Your task to perform on an android device: What's the US dollar exchange rate against the Australian Dollar? Image 0: 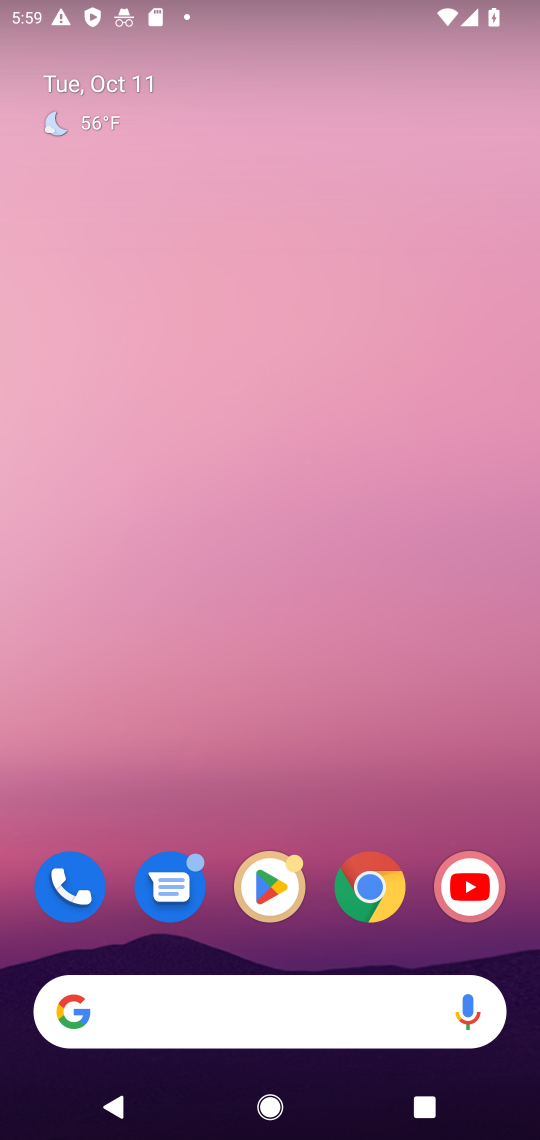
Step 0: click (511, 931)
Your task to perform on an android device: What's the US dollar exchange rate against the Australian Dollar? Image 1: 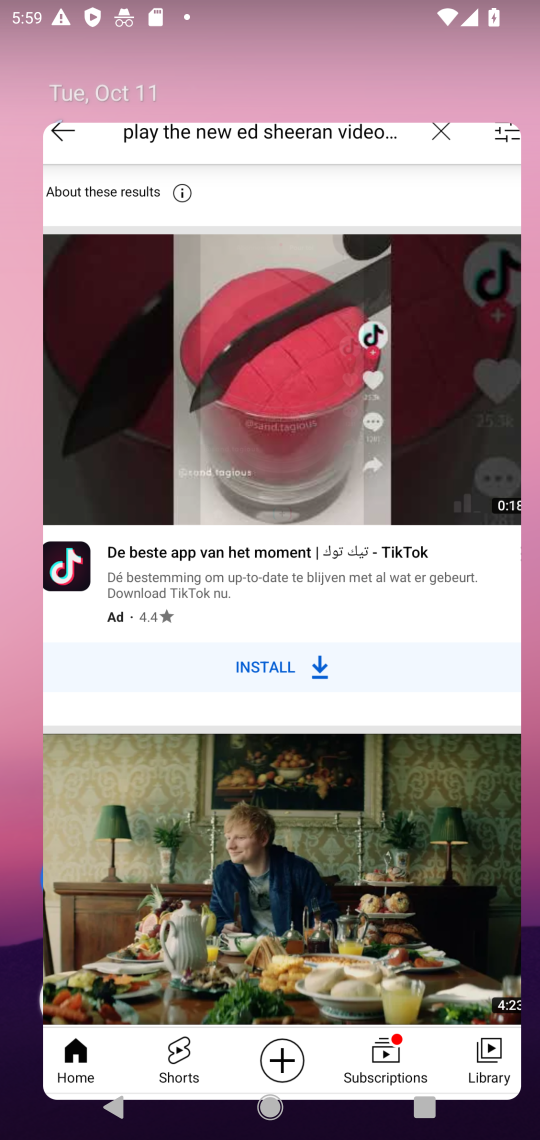
Step 1: click (289, 1006)
Your task to perform on an android device: What's the US dollar exchange rate against the Australian Dollar? Image 2: 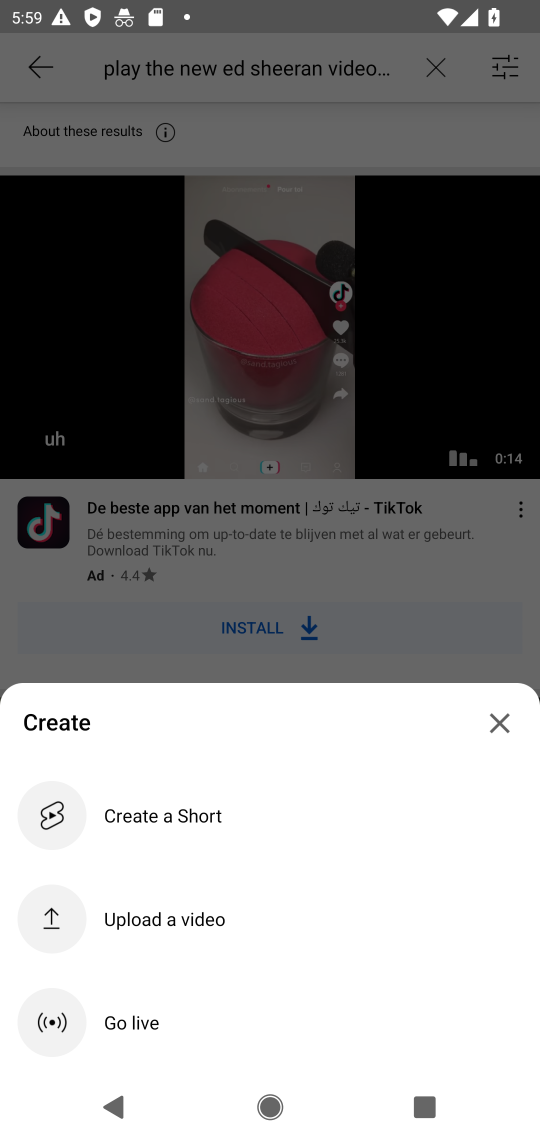
Step 2: click (487, 716)
Your task to perform on an android device: What's the US dollar exchange rate against the Australian Dollar? Image 3: 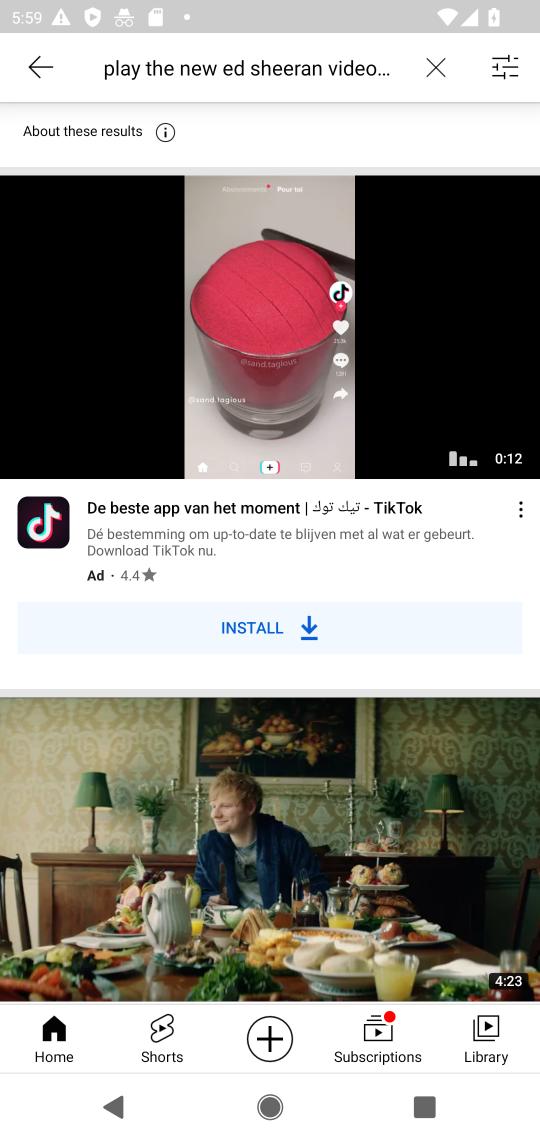
Step 3: click (45, 72)
Your task to perform on an android device: What's the US dollar exchange rate against the Australian Dollar? Image 4: 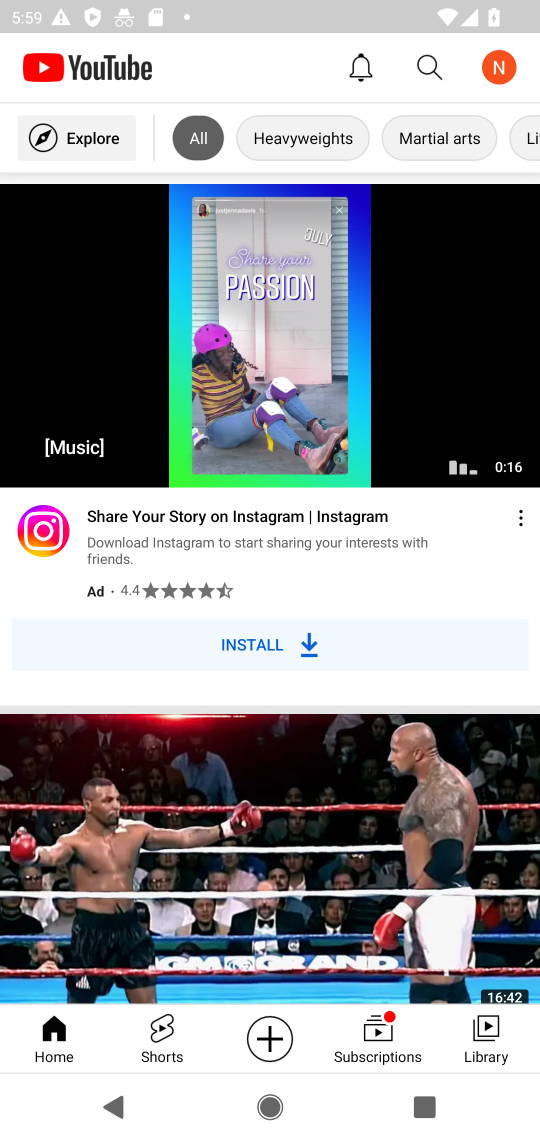
Step 4: press home button
Your task to perform on an android device: What's the US dollar exchange rate against the Australian Dollar? Image 5: 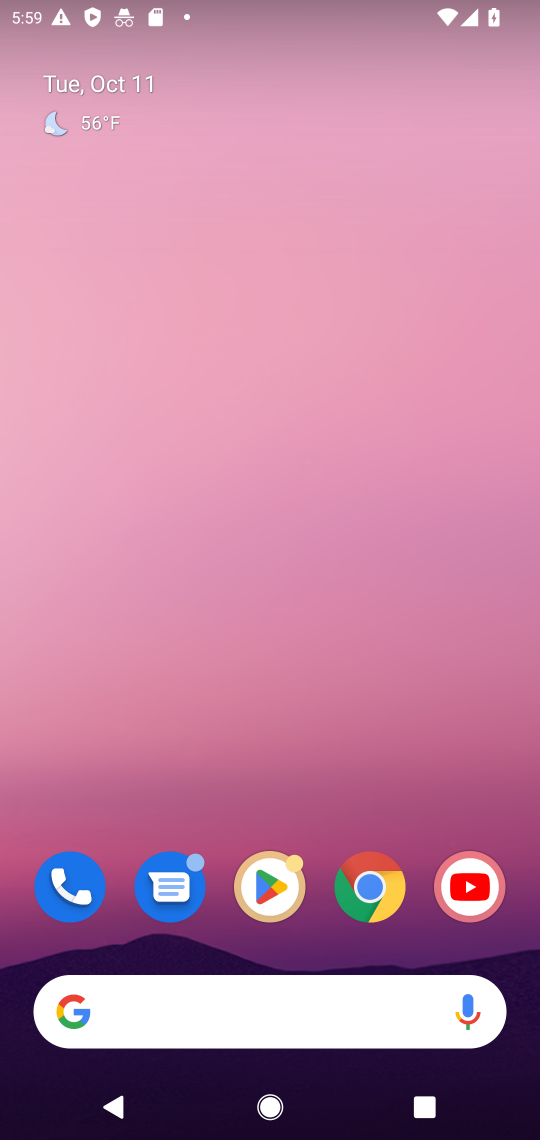
Step 5: click (286, 1014)
Your task to perform on an android device: What's the US dollar exchange rate against the Australian Dollar? Image 6: 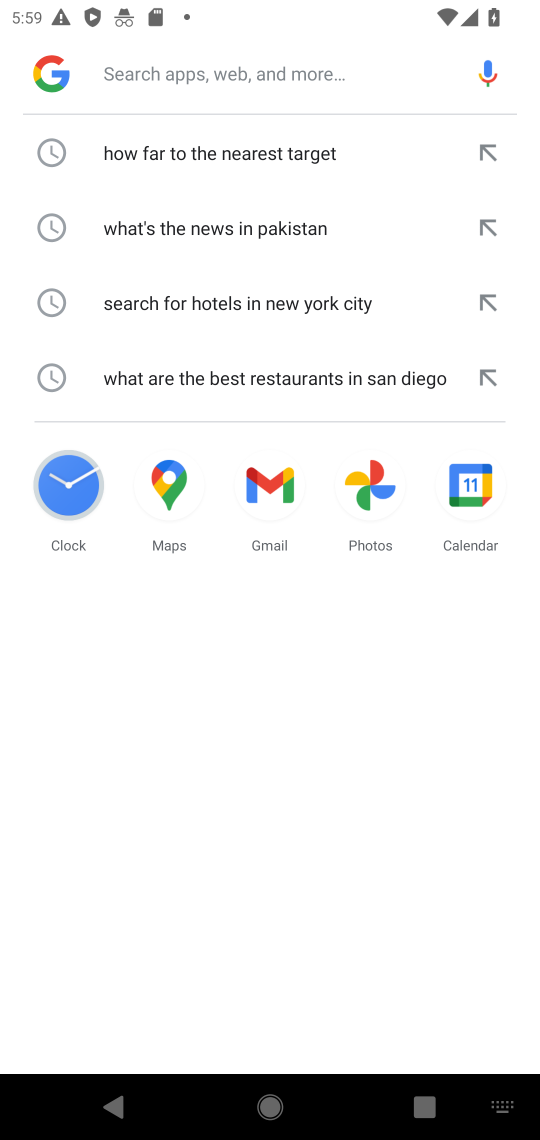
Step 6: type "What's the US dollar exchange rate against the Australian Dollar?"
Your task to perform on an android device: What's the US dollar exchange rate against the Australian Dollar? Image 7: 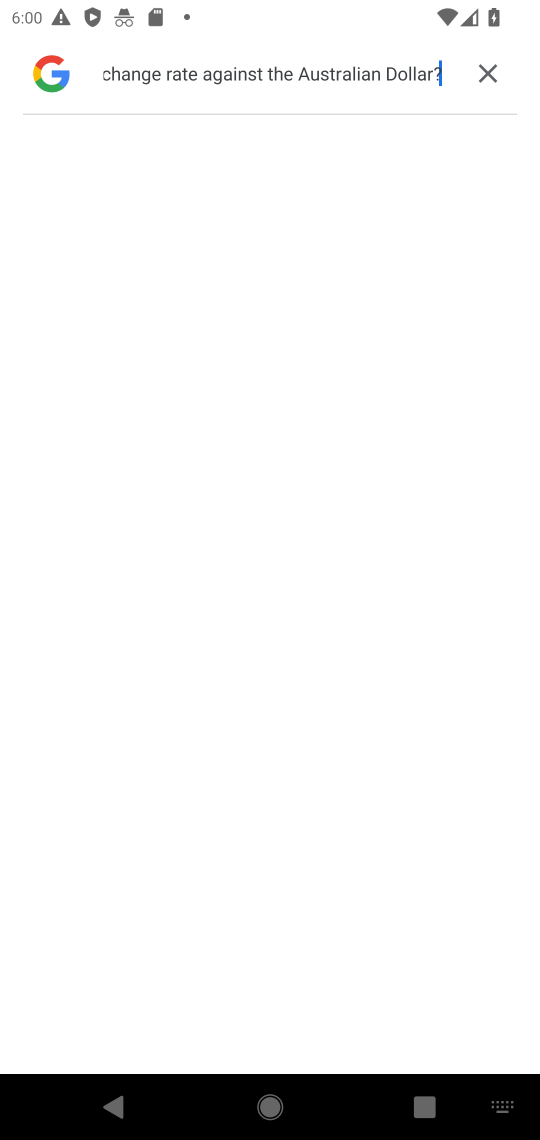
Step 7: press back button
Your task to perform on an android device: What's the US dollar exchange rate against the Australian Dollar? Image 8: 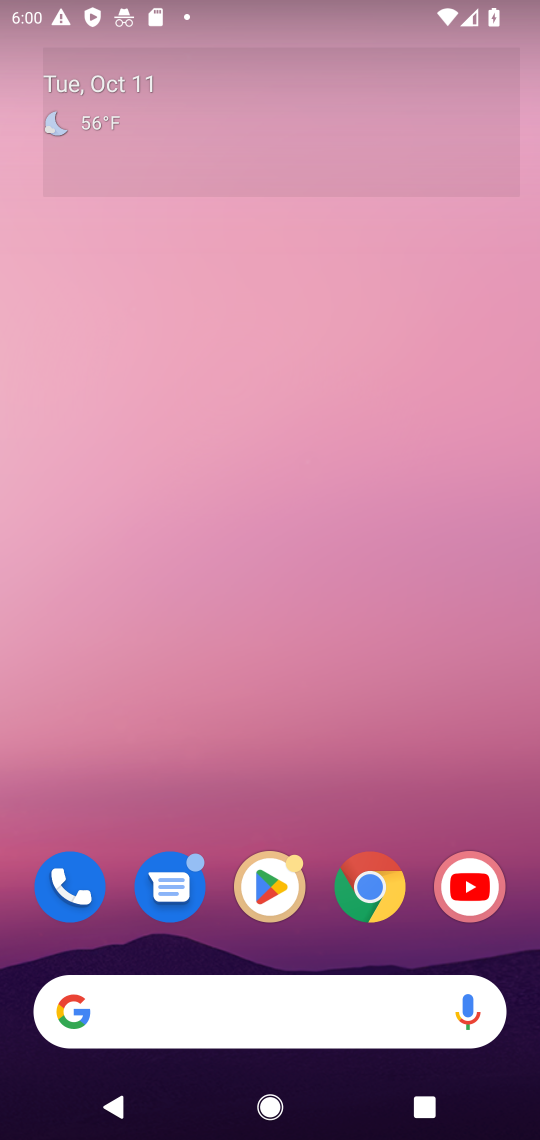
Step 8: drag from (297, 911) to (256, 71)
Your task to perform on an android device: What's the US dollar exchange rate against the Australian Dollar? Image 9: 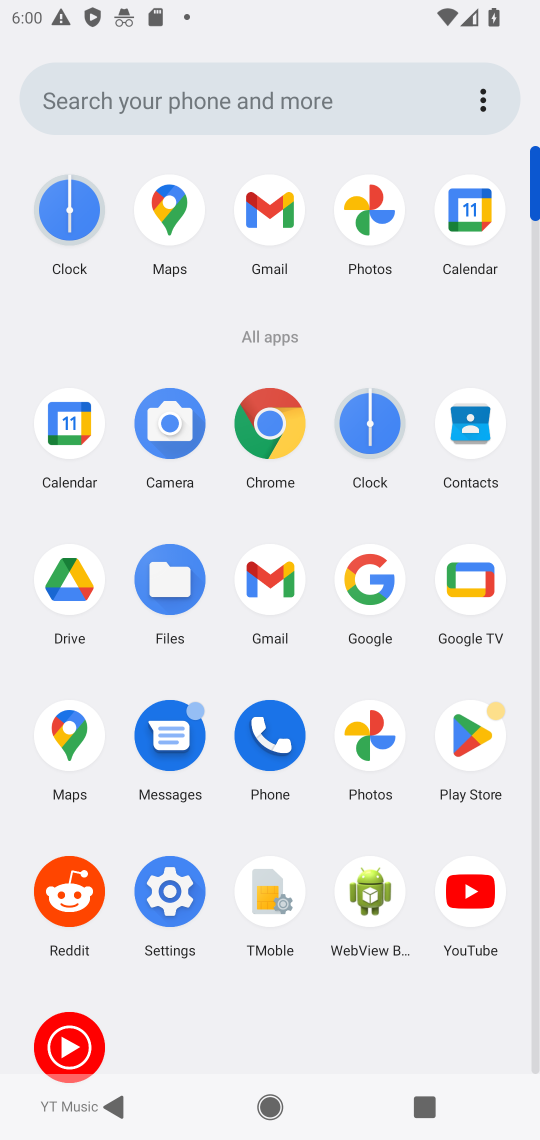
Step 9: click (389, 590)
Your task to perform on an android device: What's the US dollar exchange rate against the Australian Dollar? Image 10: 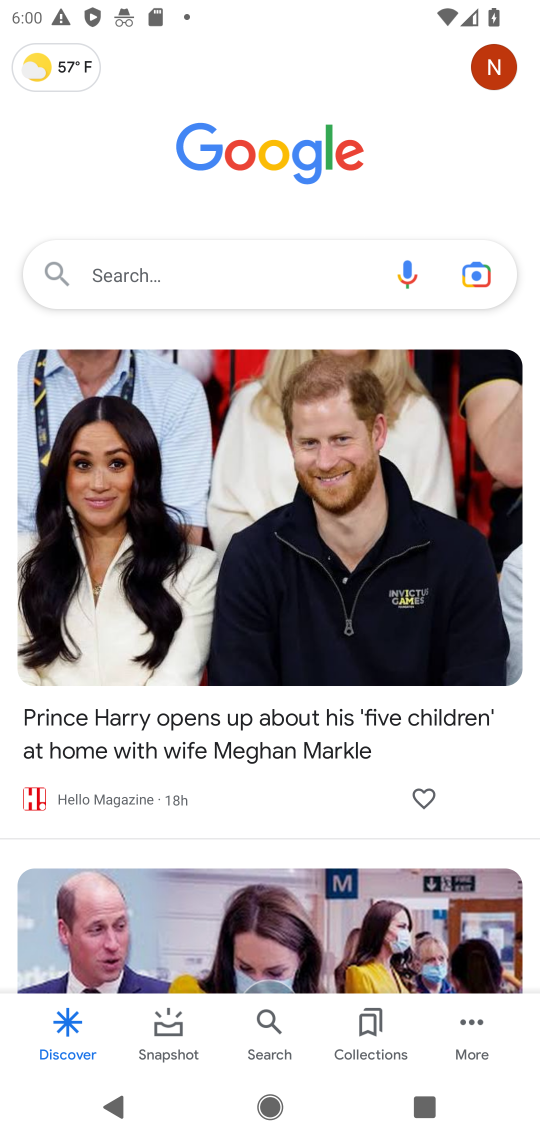
Step 10: click (168, 286)
Your task to perform on an android device: What's the US dollar exchange rate against the Australian Dollar? Image 11: 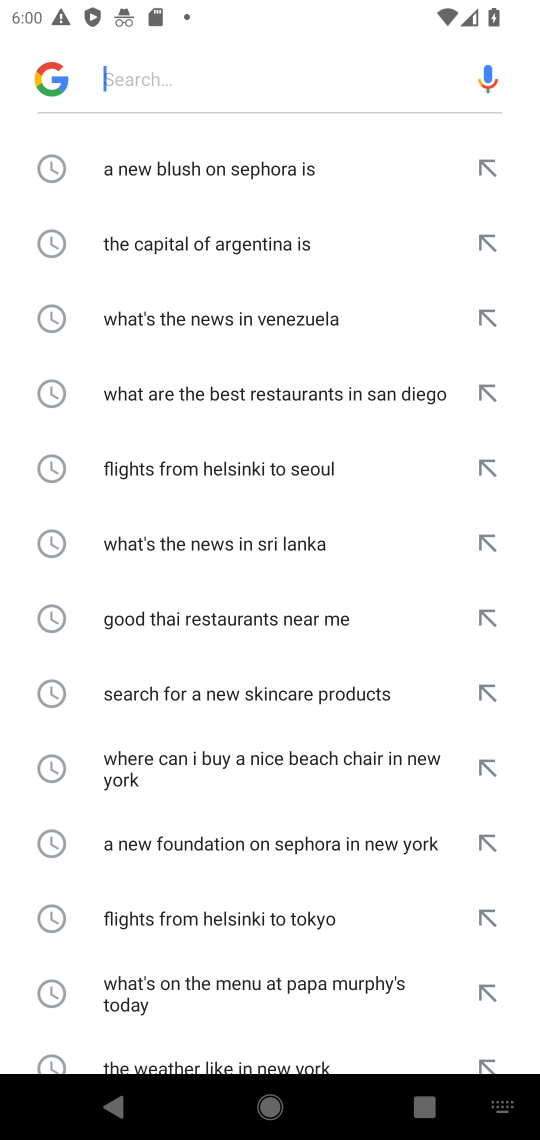
Step 11: type "What's the US dollar exchange rate against the Australian Dollar?"
Your task to perform on an android device: What's the US dollar exchange rate against the Australian Dollar? Image 12: 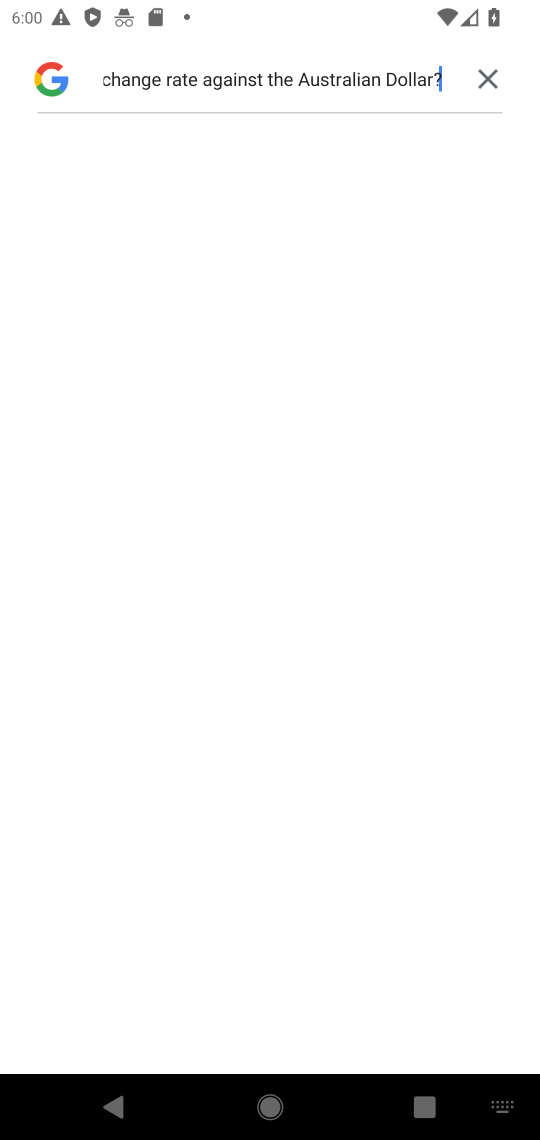
Step 12: task complete